Your task to perform on an android device: open chrome and create a bookmark for the current page Image 0: 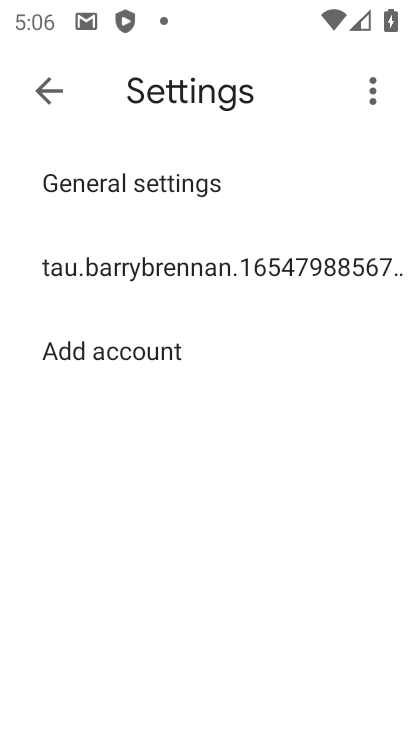
Step 0: press home button
Your task to perform on an android device: open chrome and create a bookmark for the current page Image 1: 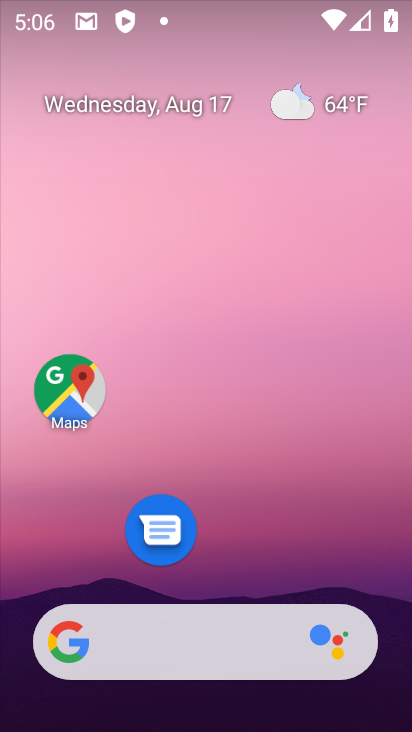
Step 1: drag from (212, 557) to (212, 65)
Your task to perform on an android device: open chrome and create a bookmark for the current page Image 2: 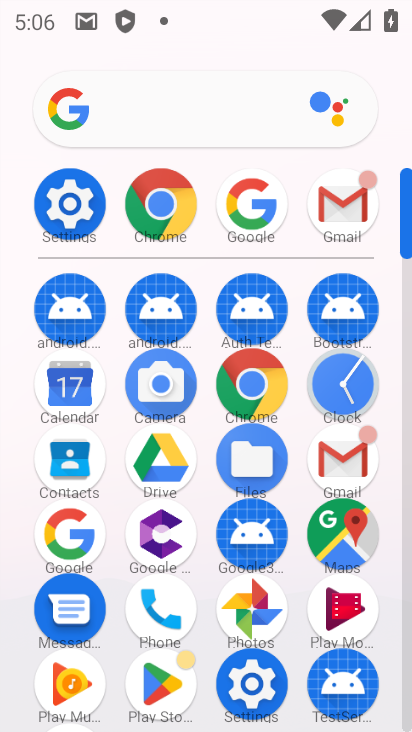
Step 2: click (160, 209)
Your task to perform on an android device: open chrome and create a bookmark for the current page Image 3: 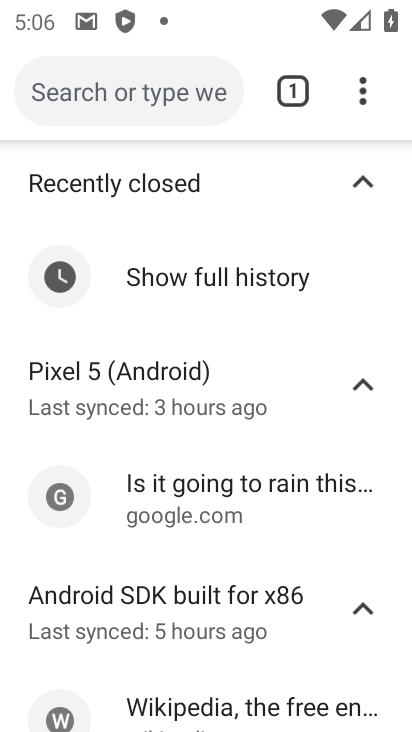
Step 3: click (360, 95)
Your task to perform on an android device: open chrome and create a bookmark for the current page Image 4: 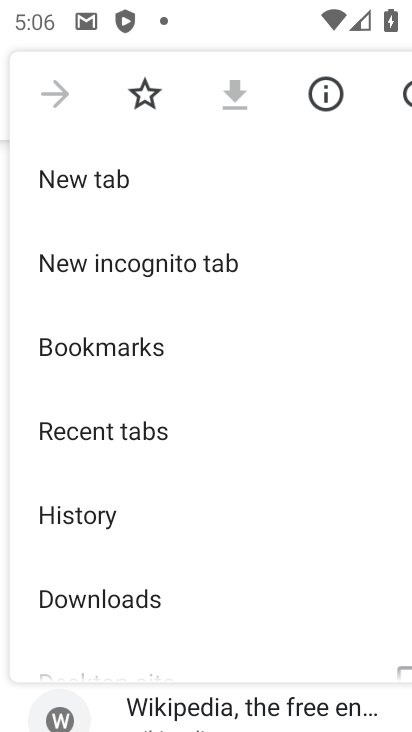
Step 4: click (80, 349)
Your task to perform on an android device: open chrome and create a bookmark for the current page Image 5: 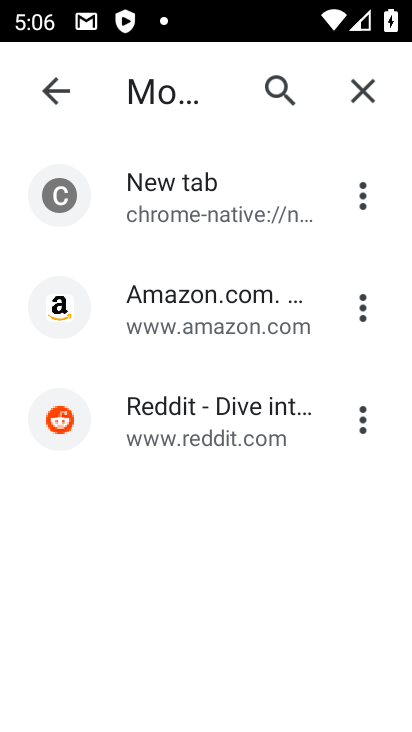
Step 5: task complete